Your task to perform on an android device: Open network settings Image 0: 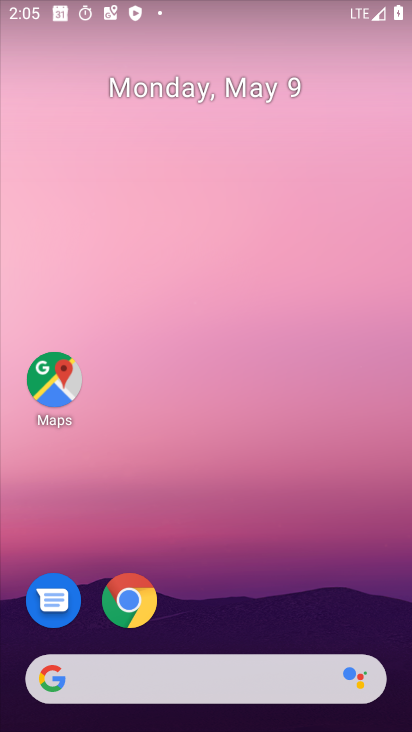
Step 0: drag from (214, 625) to (228, 218)
Your task to perform on an android device: Open network settings Image 1: 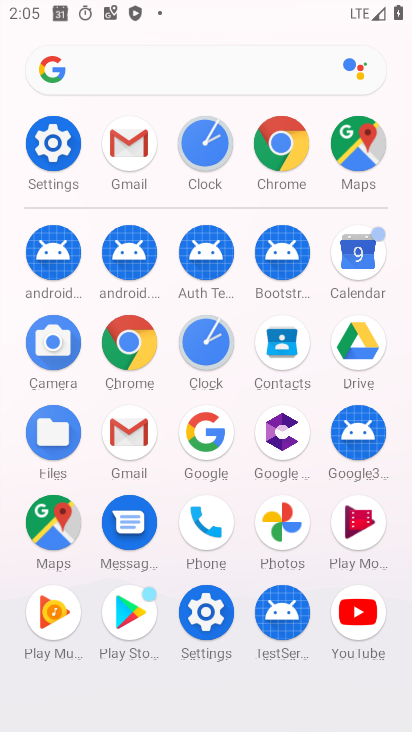
Step 1: click (214, 626)
Your task to perform on an android device: Open network settings Image 2: 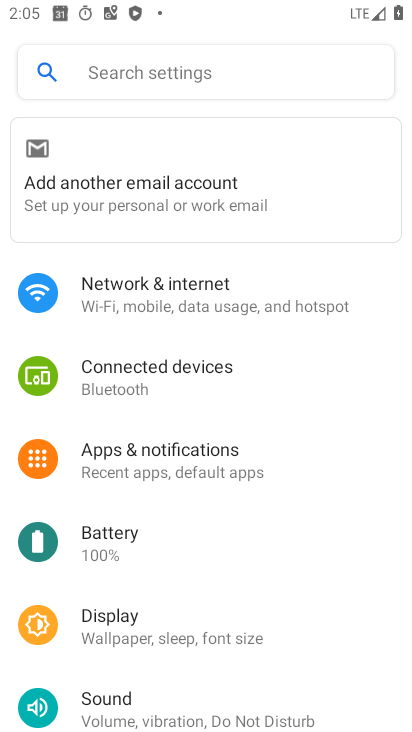
Step 2: click (219, 287)
Your task to perform on an android device: Open network settings Image 3: 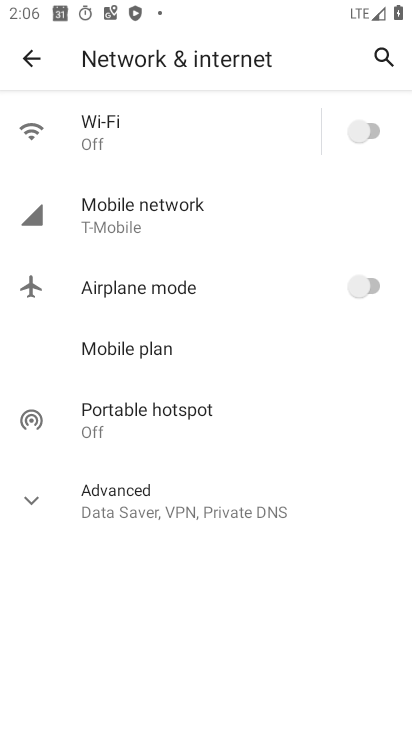
Step 3: task complete